Your task to perform on an android device: open a bookmark in the chrome app Image 0: 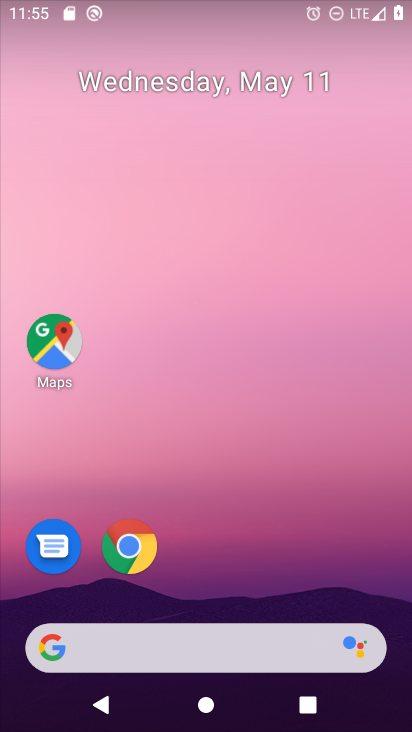
Step 0: drag from (398, 596) to (276, 49)
Your task to perform on an android device: open a bookmark in the chrome app Image 1: 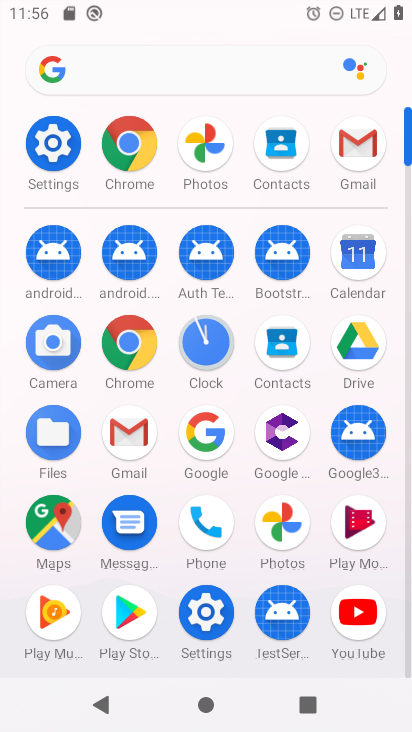
Step 1: click (134, 333)
Your task to perform on an android device: open a bookmark in the chrome app Image 2: 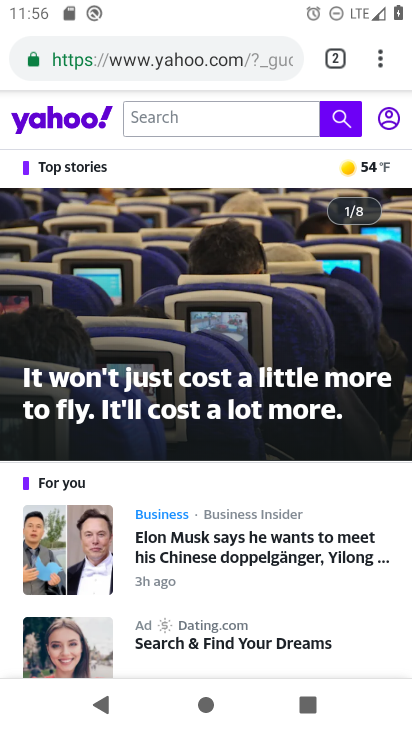
Step 2: press back button
Your task to perform on an android device: open a bookmark in the chrome app Image 3: 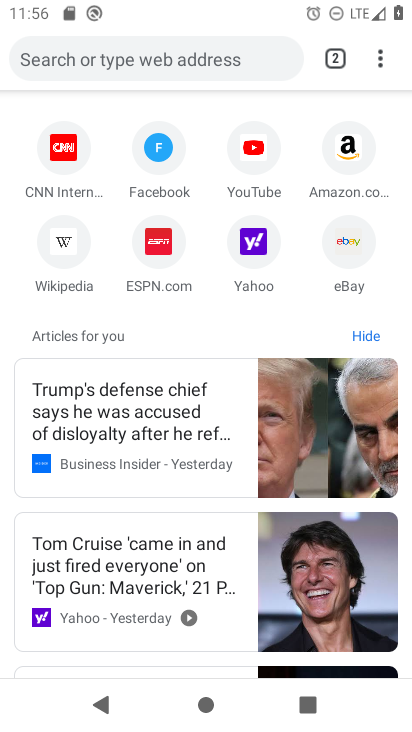
Step 3: click (378, 53)
Your task to perform on an android device: open a bookmark in the chrome app Image 4: 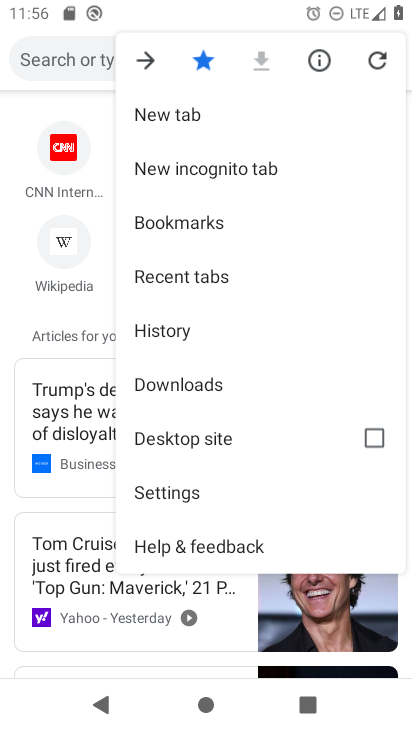
Step 4: click (212, 236)
Your task to perform on an android device: open a bookmark in the chrome app Image 5: 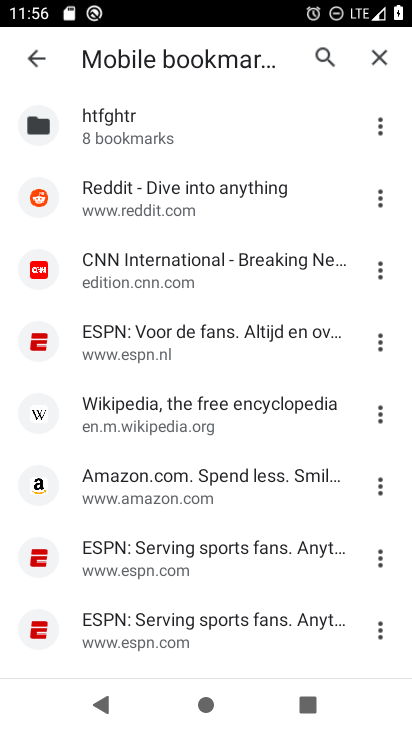
Step 5: task complete